Your task to perform on an android device: delete the emails in spam in the gmail app Image 0: 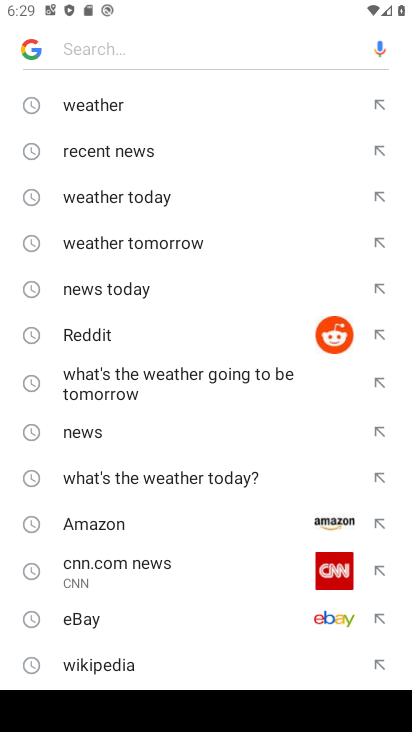
Step 0: press home button
Your task to perform on an android device: delete the emails in spam in the gmail app Image 1: 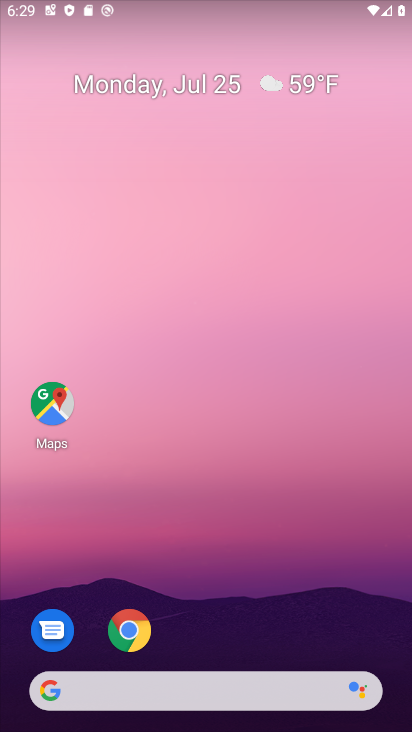
Step 1: drag from (193, 537) to (216, 191)
Your task to perform on an android device: delete the emails in spam in the gmail app Image 2: 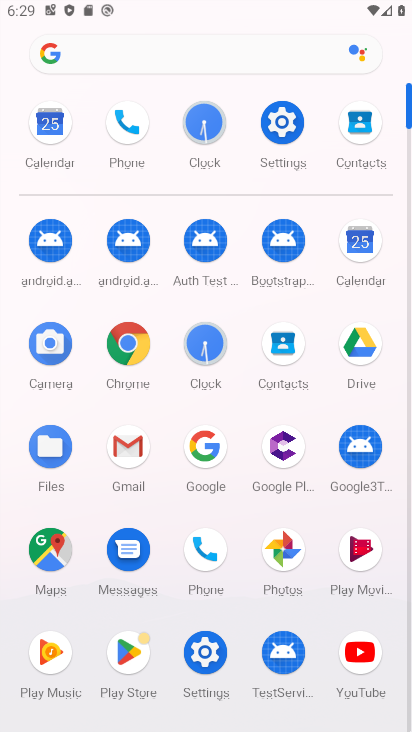
Step 2: click (121, 449)
Your task to perform on an android device: delete the emails in spam in the gmail app Image 3: 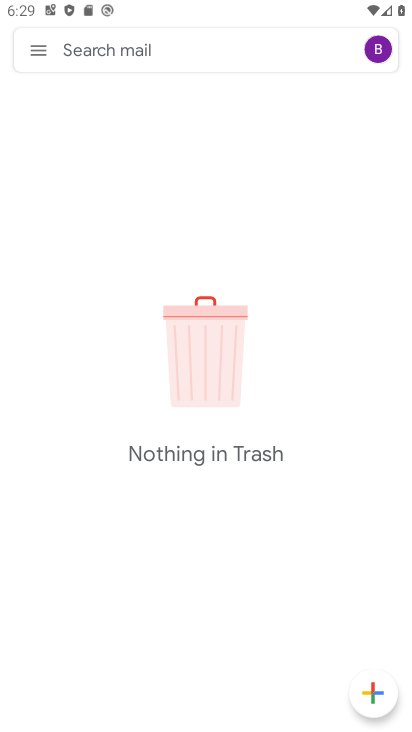
Step 3: click (41, 44)
Your task to perform on an android device: delete the emails in spam in the gmail app Image 4: 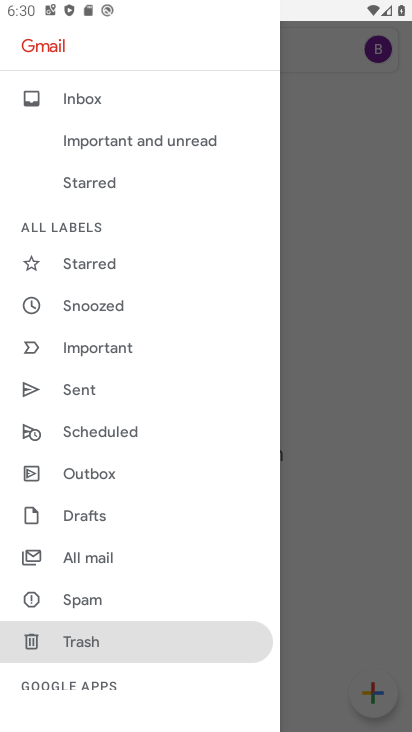
Step 4: click (77, 598)
Your task to perform on an android device: delete the emails in spam in the gmail app Image 5: 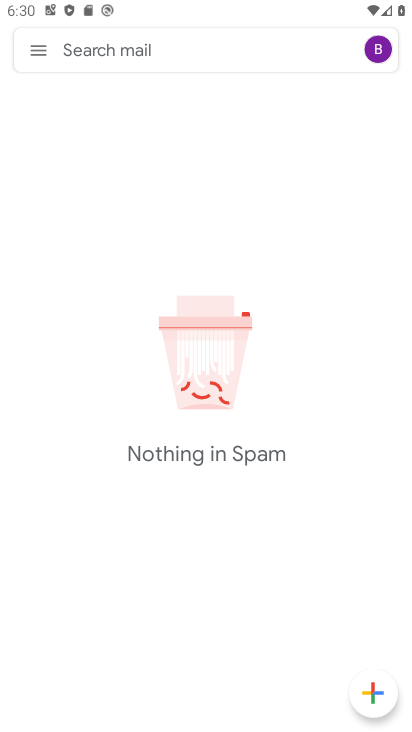
Step 5: task complete